Your task to perform on an android device: Add bose quietcomfort 35 to the cart on ebay, then select checkout. Image 0: 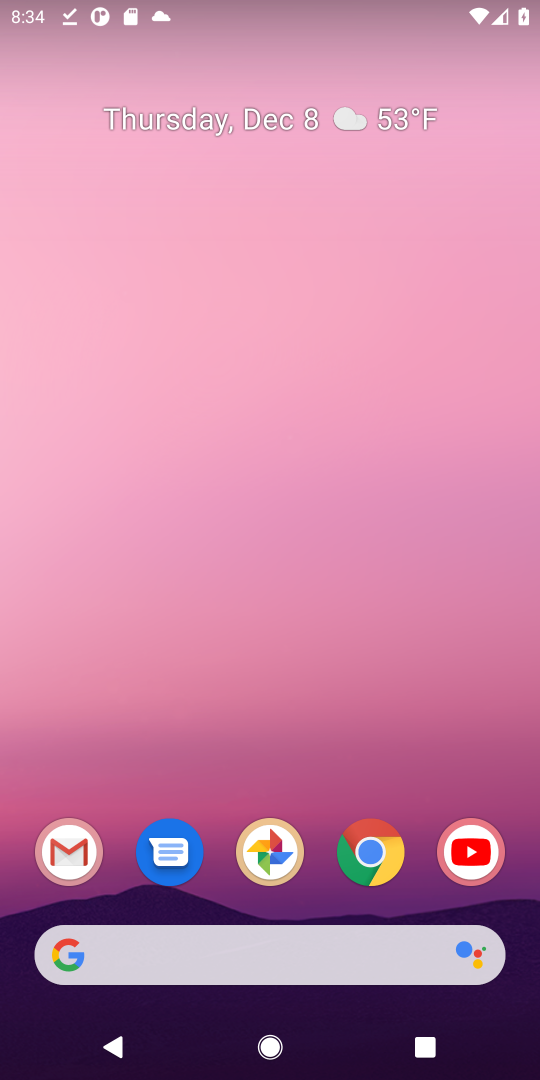
Step 0: click (258, 970)
Your task to perform on an android device: Add bose quietcomfort 35 to the cart on ebay, then select checkout. Image 1: 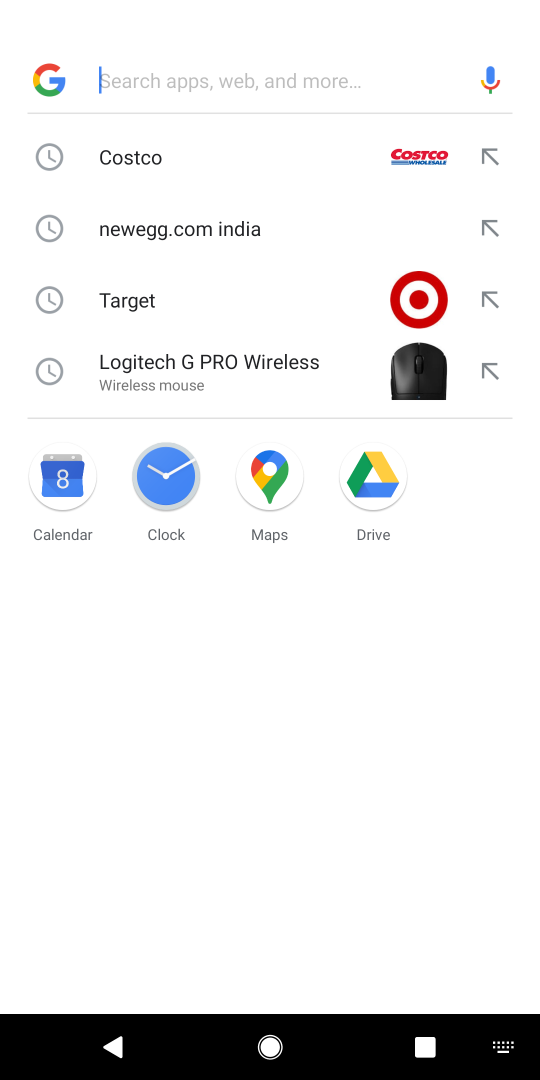
Step 1: type "ebay.com"
Your task to perform on an android device: Add bose quietcomfort 35 to the cart on ebay, then select checkout. Image 2: 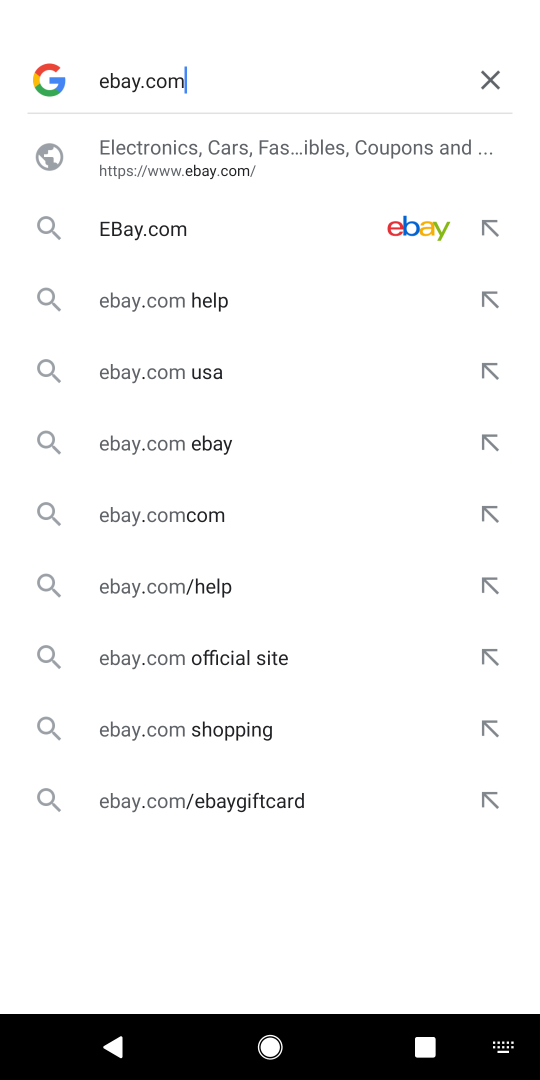
Step 2: click (202, 193)
Your task to perform on an android device: Add bose quietcomfort 35 to the cart on ebay, then select checkout. Image 3: 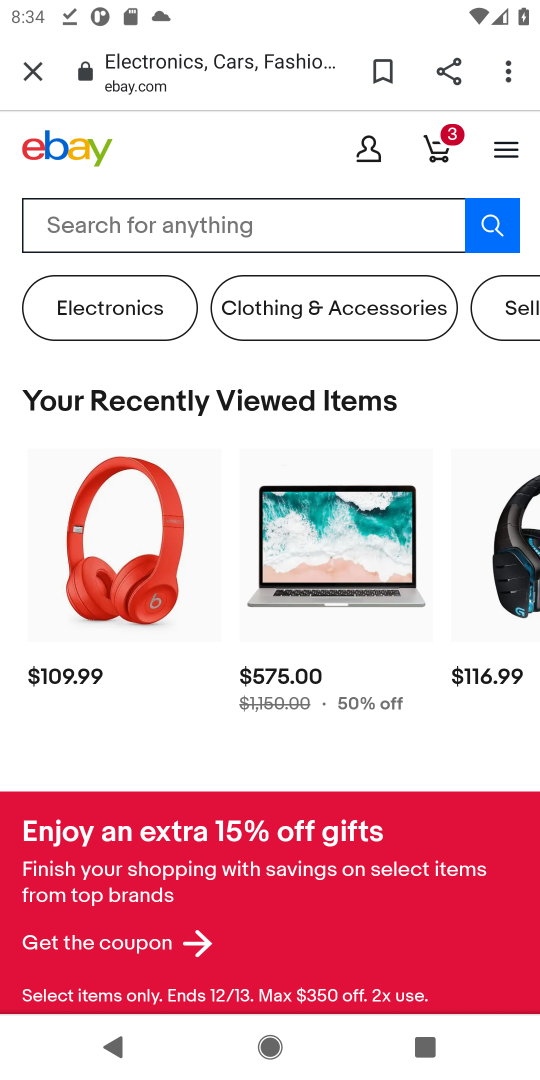
Step 3: click (110, 235)
Your task to perform on an android device: Add bose quietcomfort 35 to the cart on ebay, then select checkout. Image 4: 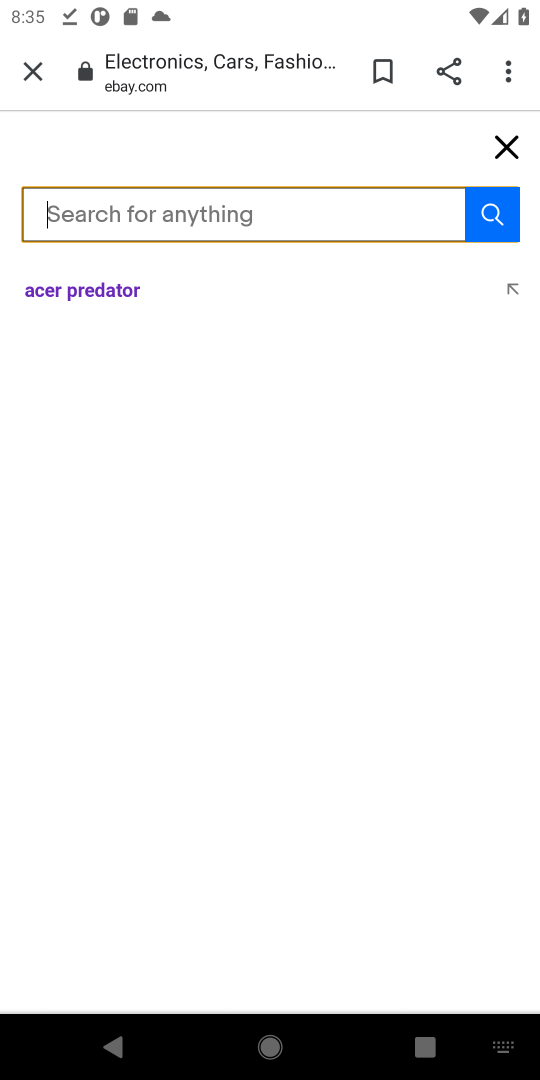
Step 4: type "bose quietcomfort 35"
Your task to perform on an android device: Add bose quietcomfort 35 to the cart on ebay, then select checkout. Image 5: 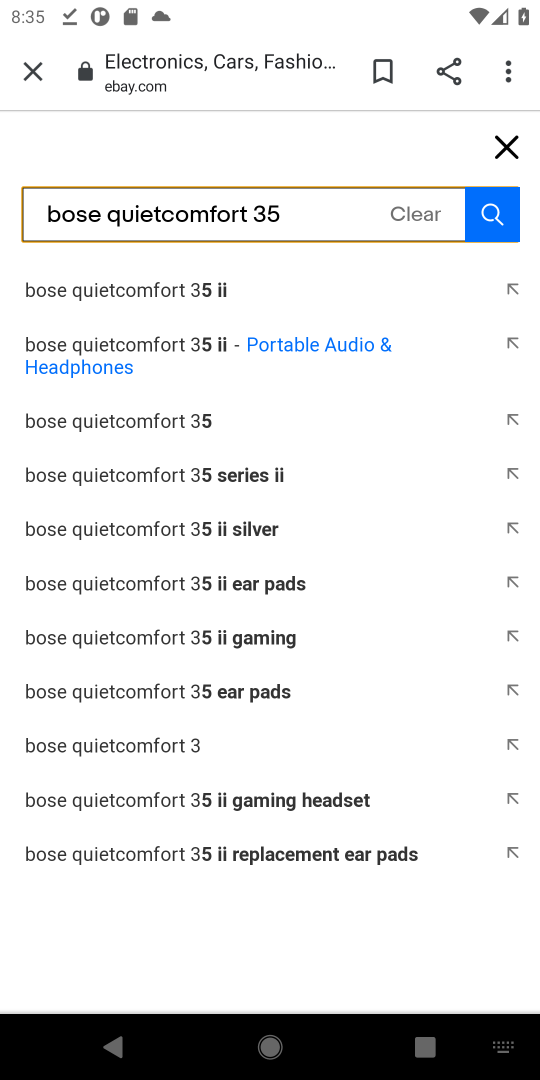
Step 5: click (486, 231)
Your task to perform on an android device: Add bose quietcomfort 35 to the cart on ebay, then select checkout. Image 6: 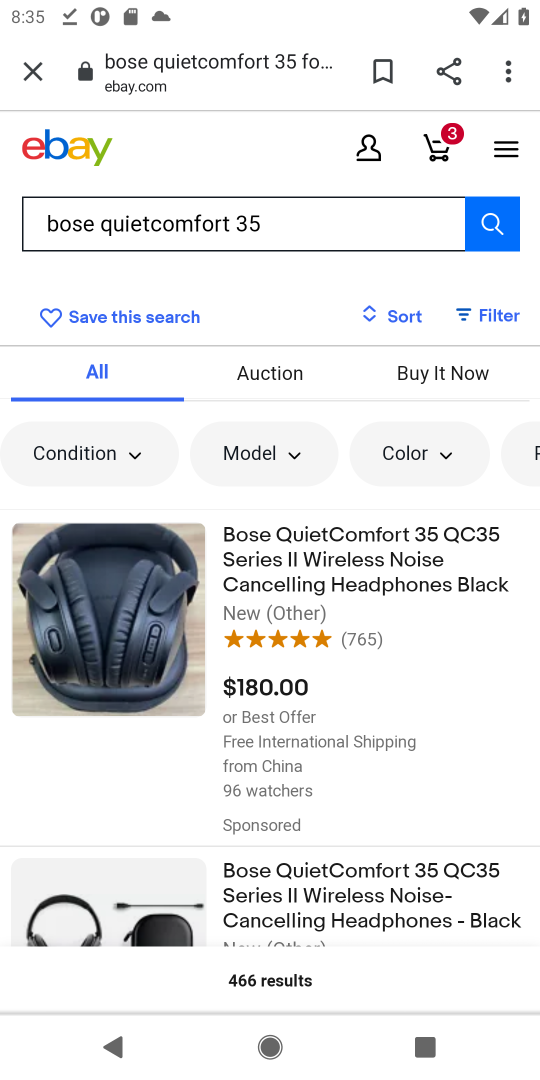
Step 6: click (295, 588)
Your task to perform on an android device: Add bose quietcomfort 35 to the cart on ebay, then select checkout. Image 7: 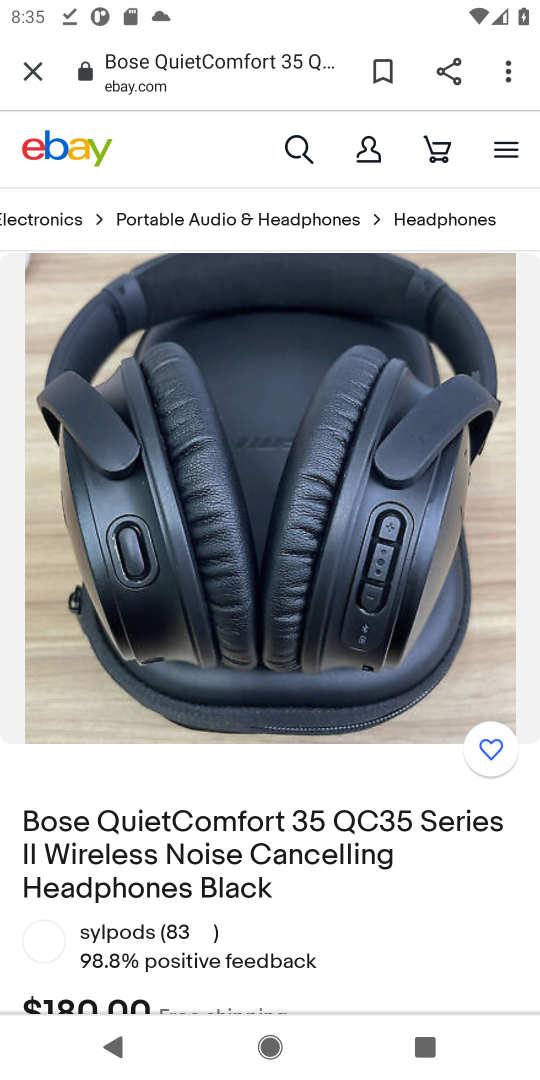
Step 7: drag from (343, 892) to (338, 681)
Your task to perform on an android device: Add bose quietcomfort 35 to the cart on ebay, then select checkout. Image 8: 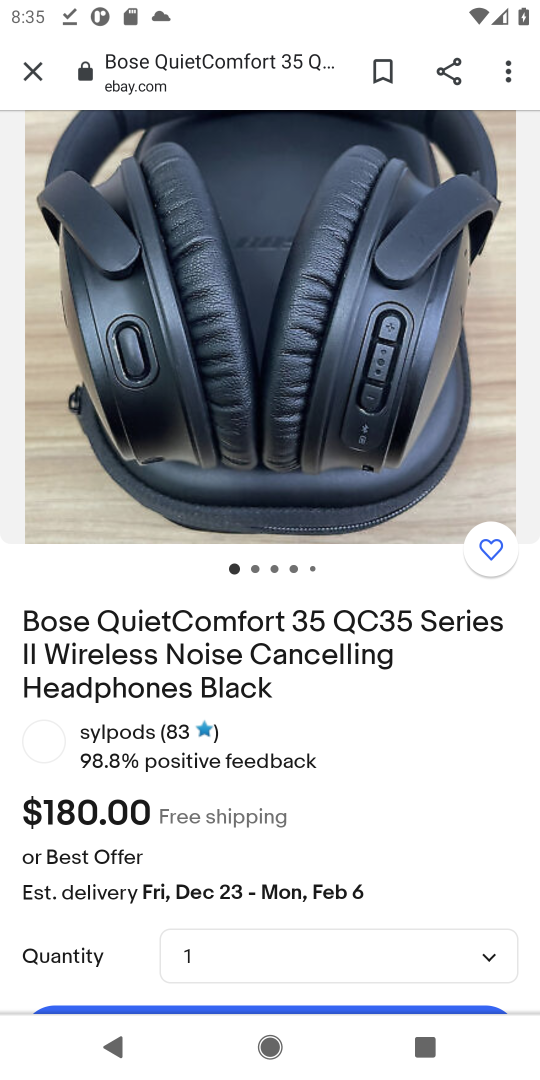
Step 8: drag from (408, 830) to (422, 571)
Your task to perform on an android device: Add bose quietcomfort 35 to the cart on ebay, then select checkout. Image 9: 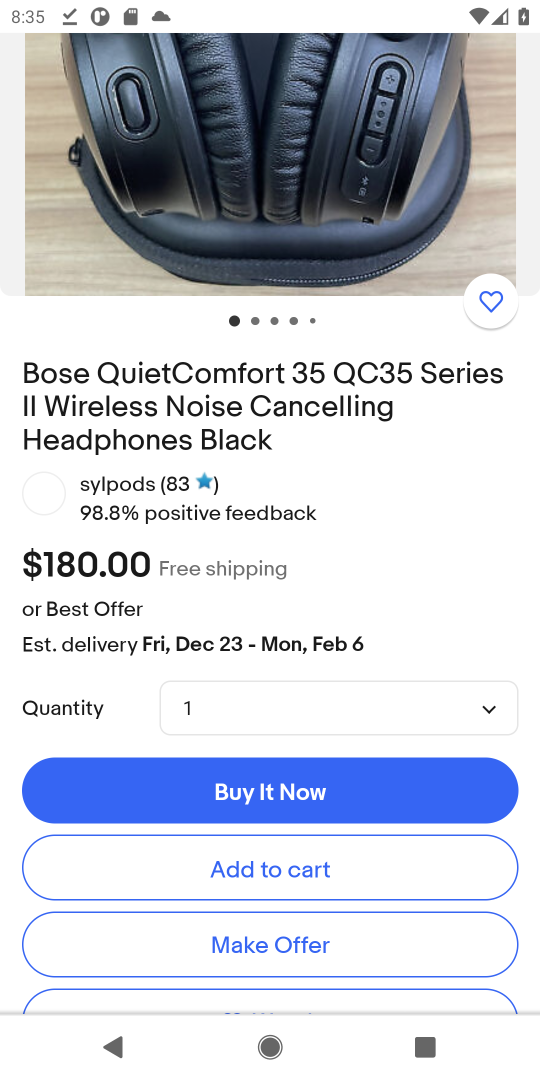
Step 9: click (219, 867)
Your task to perform on an android device: Add bose quietcomfort 35 to the cart on ebay, then select checkout. Image 10: 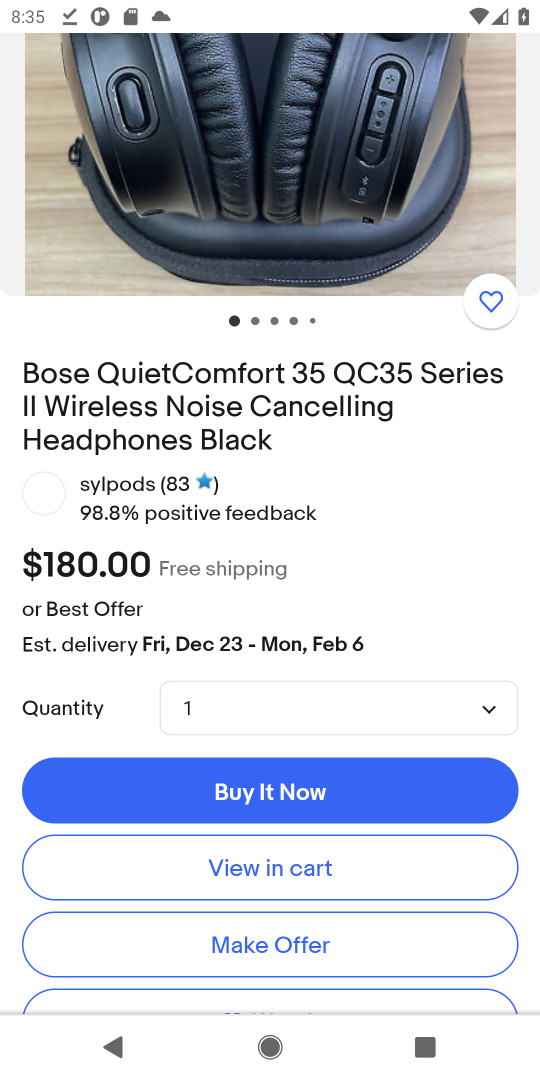
Step 10: task complete